Your task to perform on an android device: move an email to a new category in the gmail app Image 0: 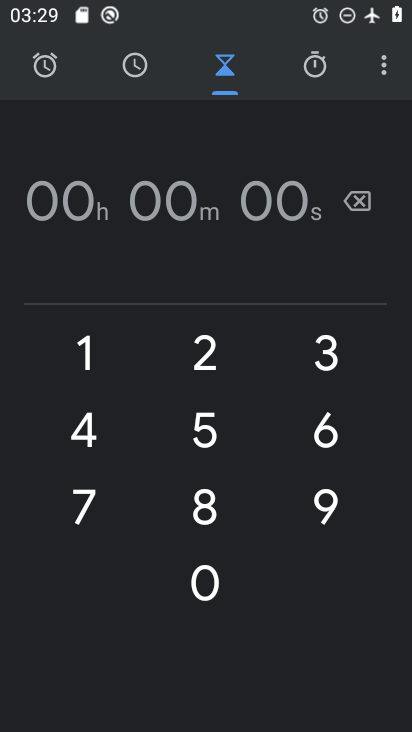
Step 0: press home button
Your task to perform on an android device: move an email to a new category in the gmail app Image 1: 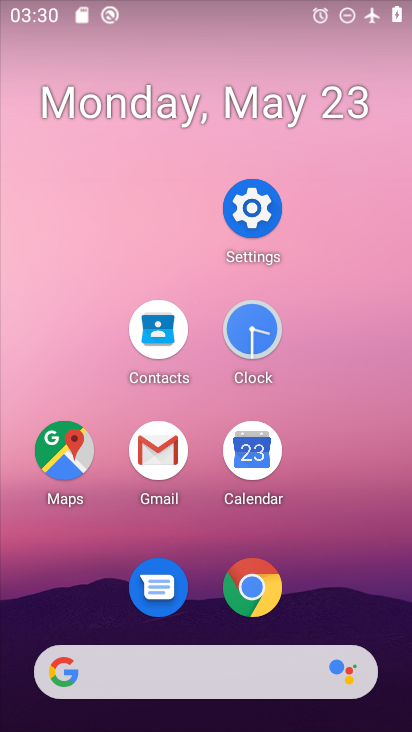
Step 1: click (146, 450)
Your task to perform on an android device: move an email to a new category in the gmail app Image 2: 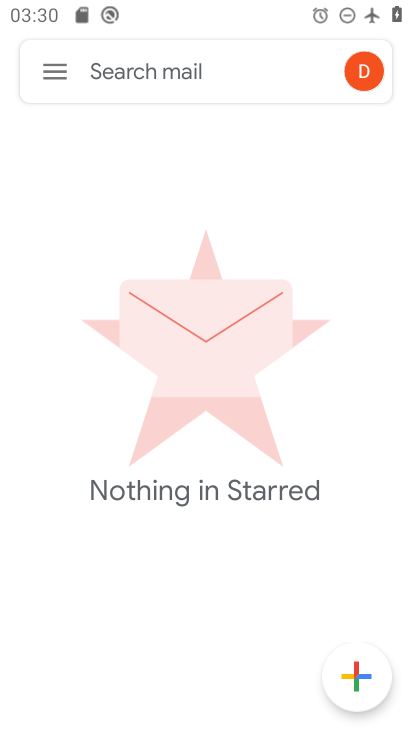
Step 2: click (52, 60)
Your task to perform on an android device: move an email to a new category in the gmail app Image 3: 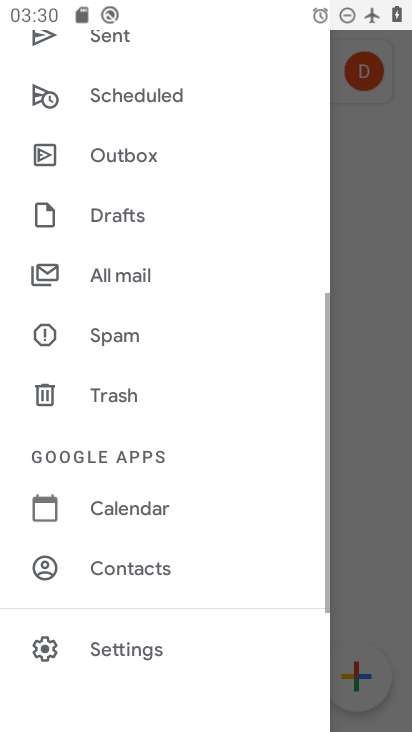
Step 3: click (88, 281)
Your task to perform on an android device: move an email to a new category in the gmail app Image 4: 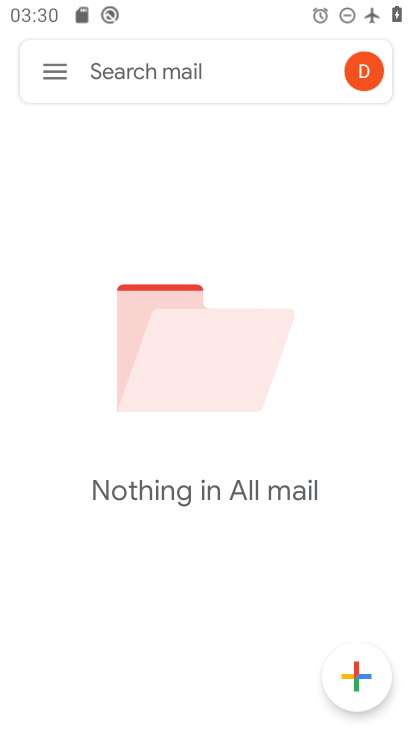
Step 4: task complete